Your task to perform on an android device: find snoozed emails in the gmail app Image 0: 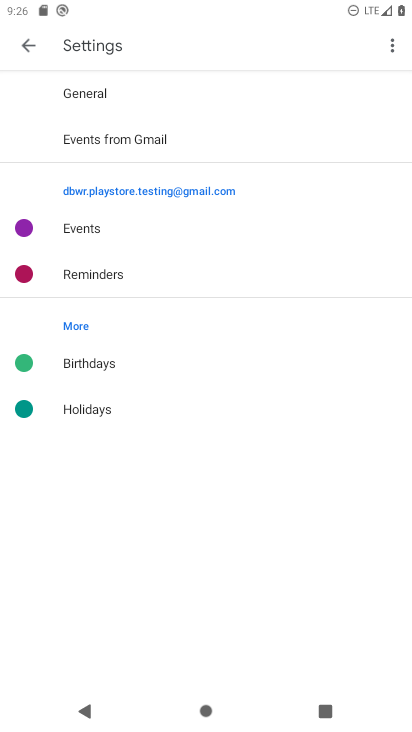
Step 0: click (30, 50)
Your task to perform on an android device: find snoozed emails in the gmail app Image 1: 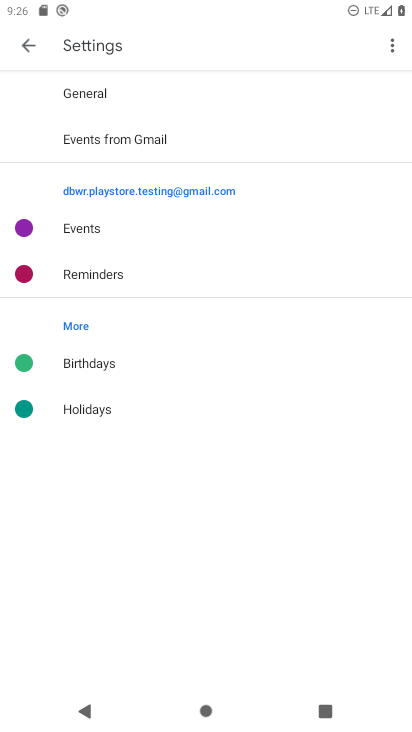
Step 1: click (30, 50)
Your task to perform on an android device: find snoozed emails in the gmail app Image 2: 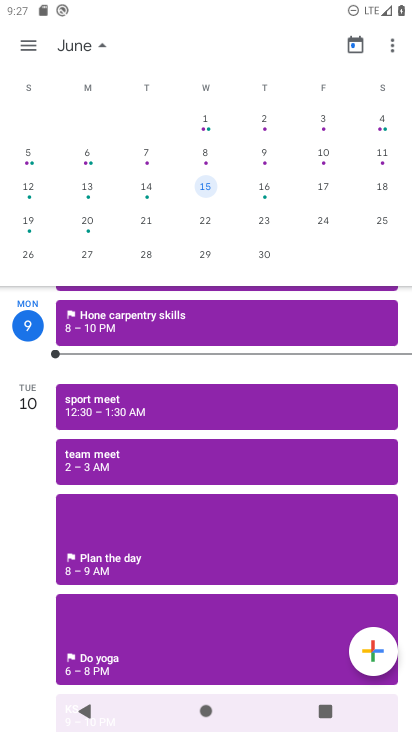
Step 2: press home button
Your task to perform on an android device: find snoozed emails in the gmail app Image 3: 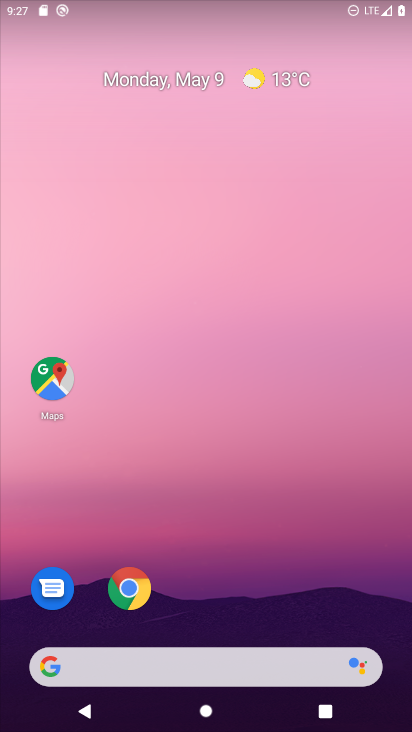
Step 3: drag from (243, 613) to (245, 33)
Your task to perform on an android device: find snoozed emails in the gmail app Image 4: 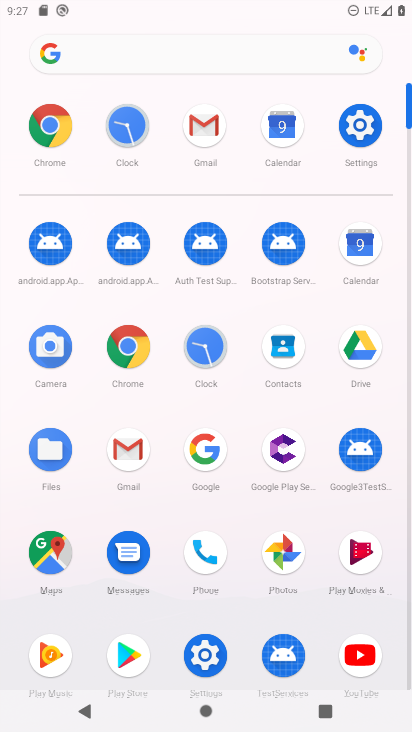
Step 4: click (199, 124)
Your task to perform on an android device: find snoozed emails in the gmail app Image 5: 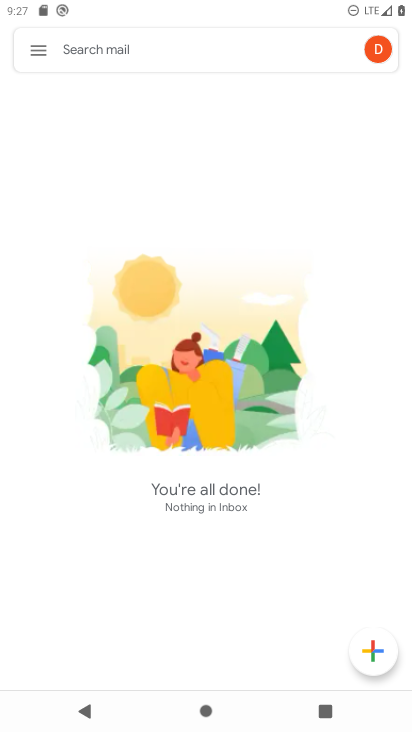
Step 5: click (49, 55)
Your task to perform on an android device: find snoozed emails in the gmail app Image 6: 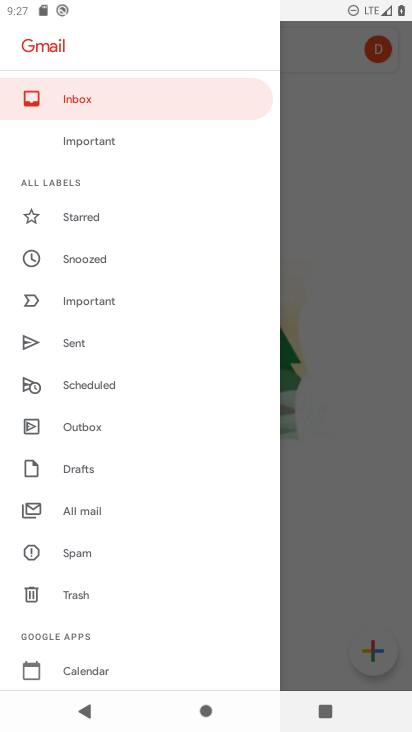
Step 6: click (90, 248)
Your task to perform on an android device: find snoozed emails in the gmail app Image 7: 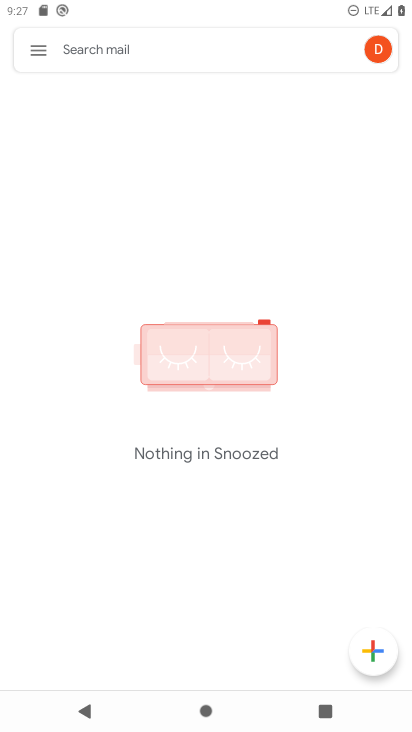
Step 7: task complete